Your task to perform on an android device: Open Android settings Image 0: 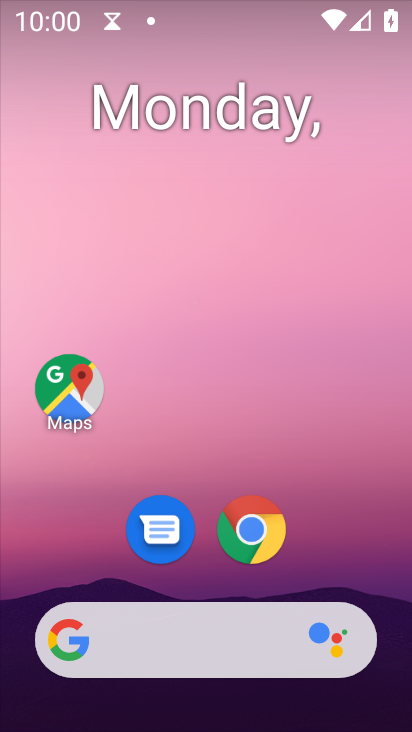
Step 0: press home button
Your task to perform on an android device: Open Android settings Image 1: 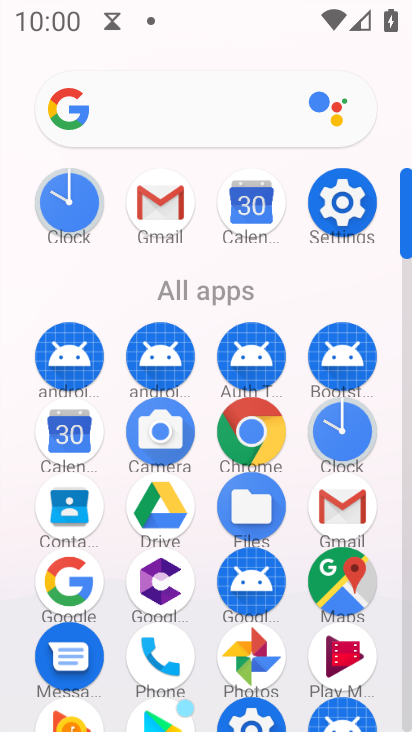
Step 1: drag from (348, 545) to (252, 172)
Your task to perform on an android device: Open Android settings Image 2: 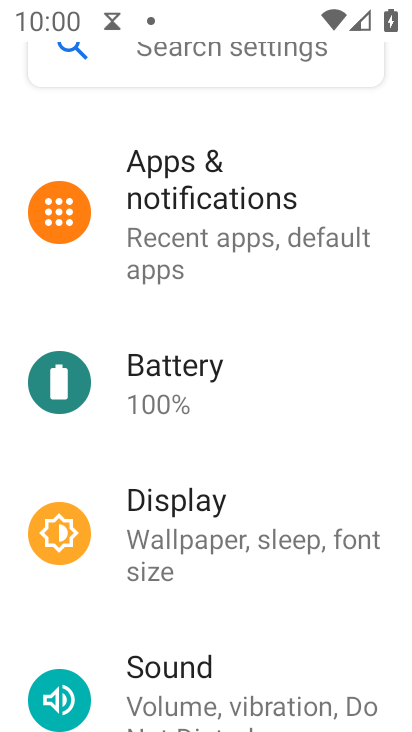
Step 2: click (346, 199)
Your task to perform on an android device: Open Android settings Image 3: 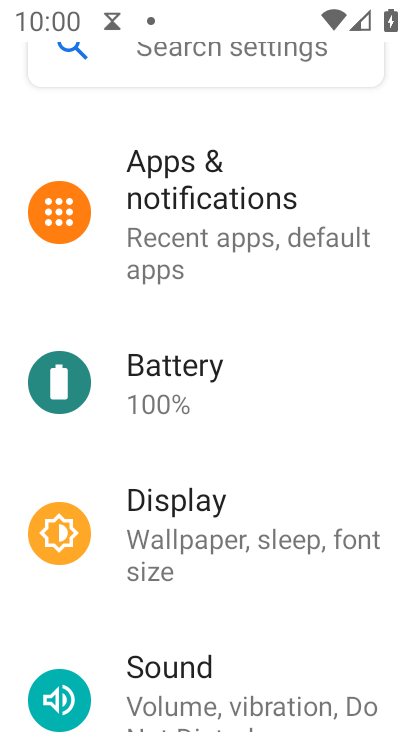
Step 3: task complete